Your task to perform on an android device: show emergency info Image 0: 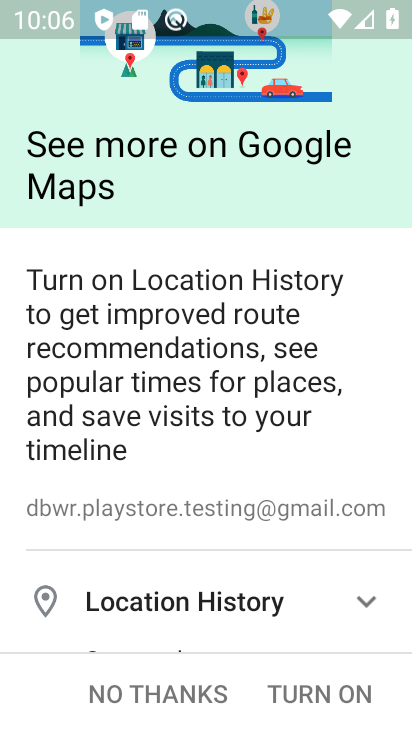
Step 0: click (328, 675)
Your task to perform on an android device: show emergency info Image 1: 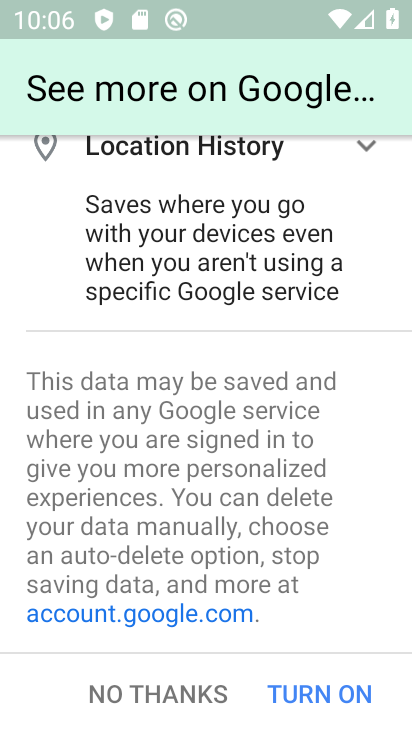
Step 1: click (328, 675)
Your task to perform on an android device: show emergency info Image 2: 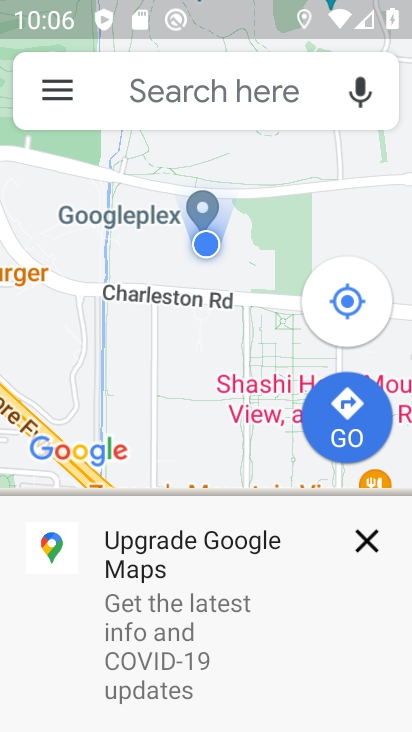
Step 2: click (366, 550)
Your task to perform on an android device: show emergency info Image 3: 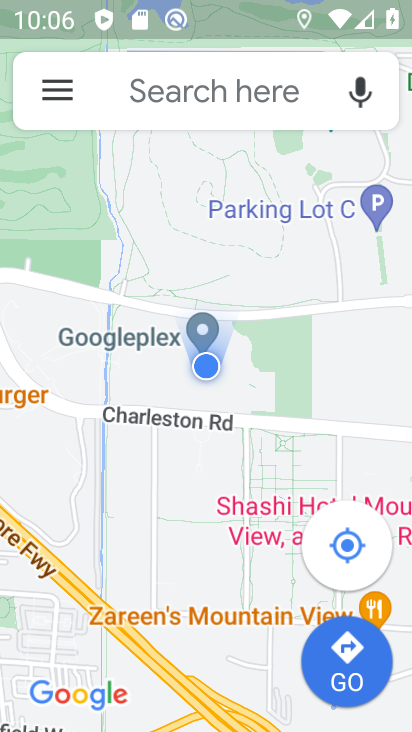
Step 3: press home button
Your task to perform on an android device: show emergency info Image 4: 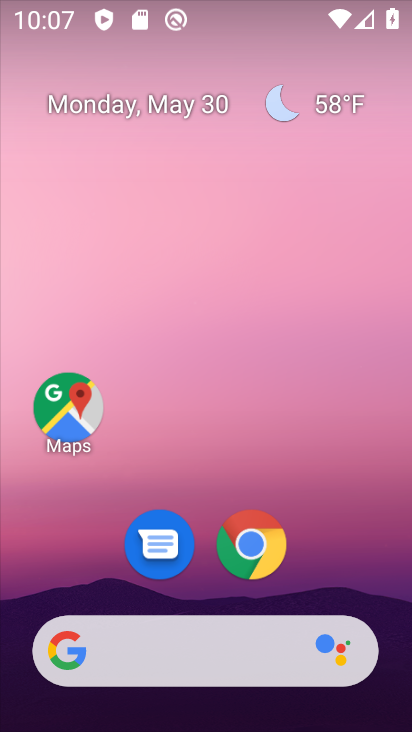
Step 4: drag from (333, 562) to (258, 67)
Your task to perform on an android device: show emergency info Image 5: 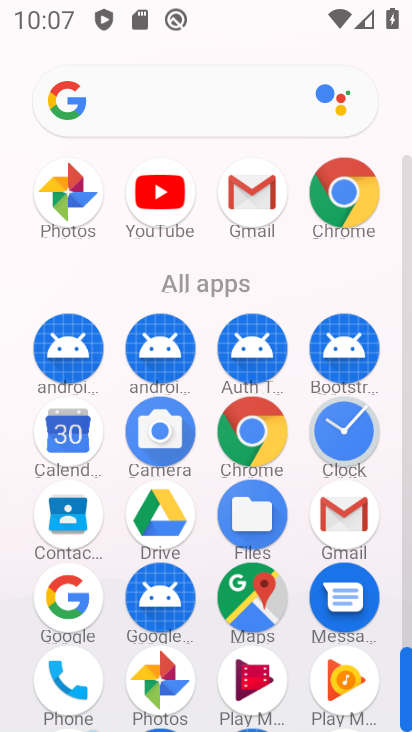
Step 5: click (407, 680)
Your task to perform on an android device: show emergency info Image 6: 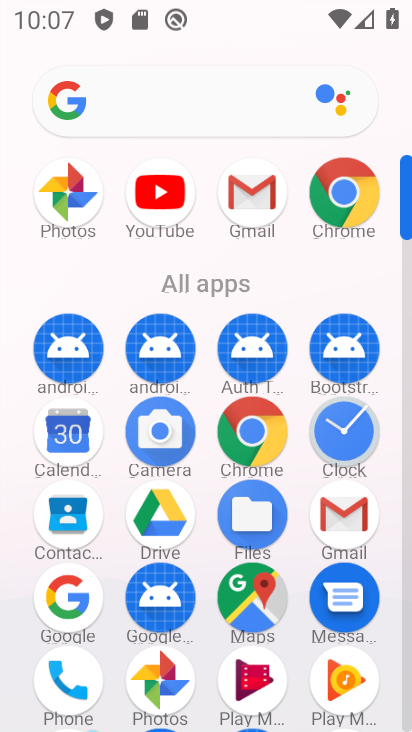
Step 6: click (408, 729)
Your task to perform on an android device: show emergency info Image 7: 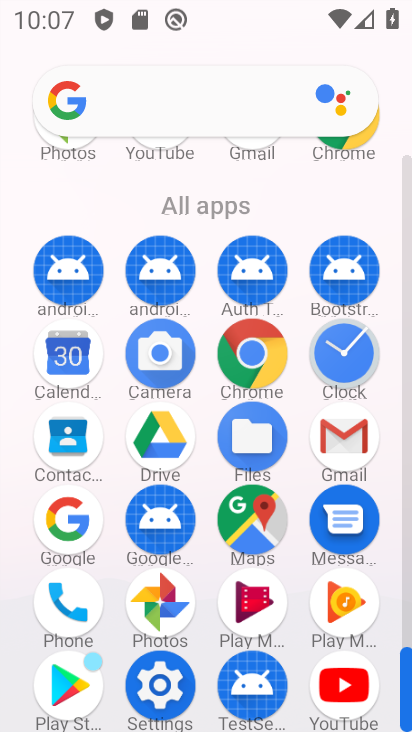
Step 7: click (143, 691)
Your task to perform on an android device: show emergency info Image 8: 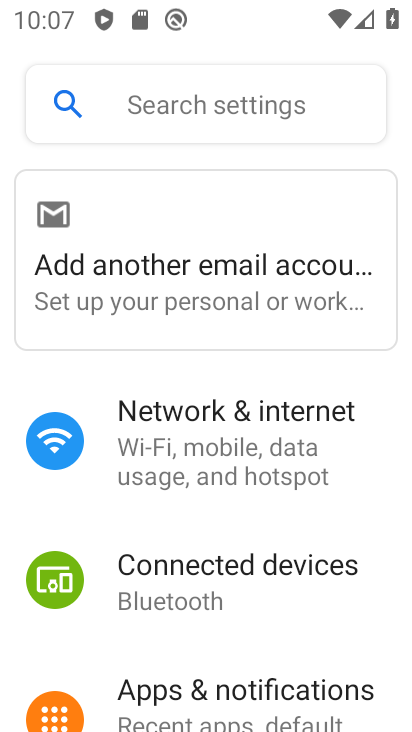
Step 8: drag from (292, 571) to (321, 1)
Your task to perform on an android device: show emergency info Image 9: 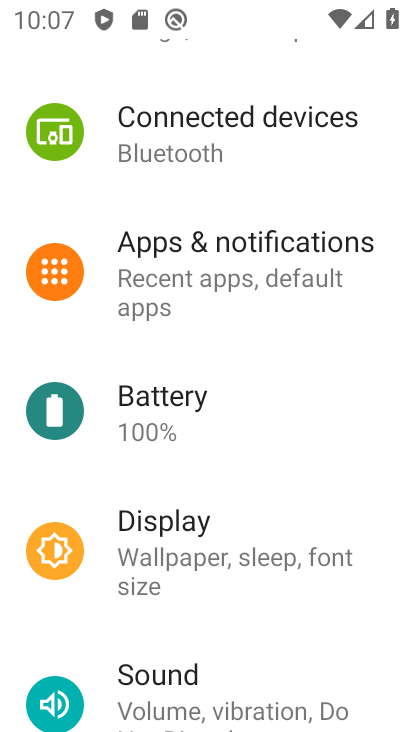
Step 9: drag from (303, 638) to (331, 96)
Your task to perform on an android device: show emergency info Image 10: 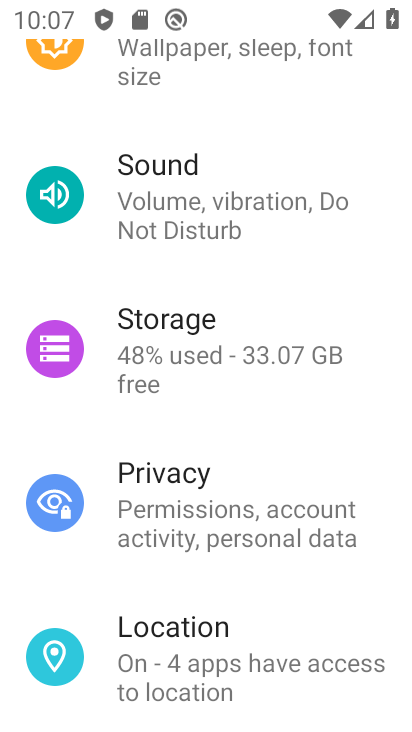
Step 10: drag from (284, 687) to (326, 68)
Your task to perform on an android device: show emergency info Image 11: 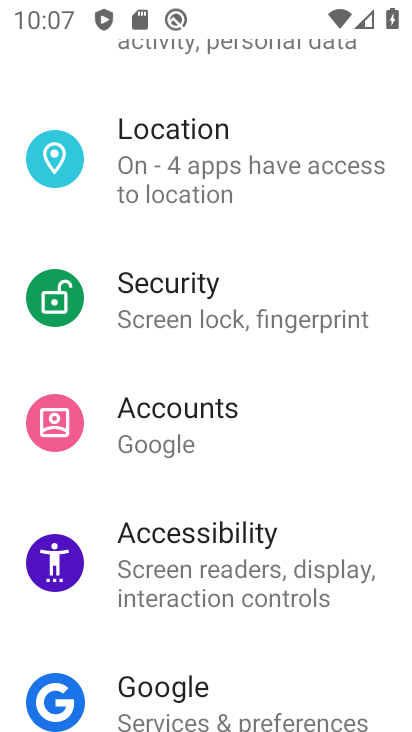
Step 11: drag from (260, 669) to (273, 260)
Your task to perform on an android device: show emergency info Image 12: 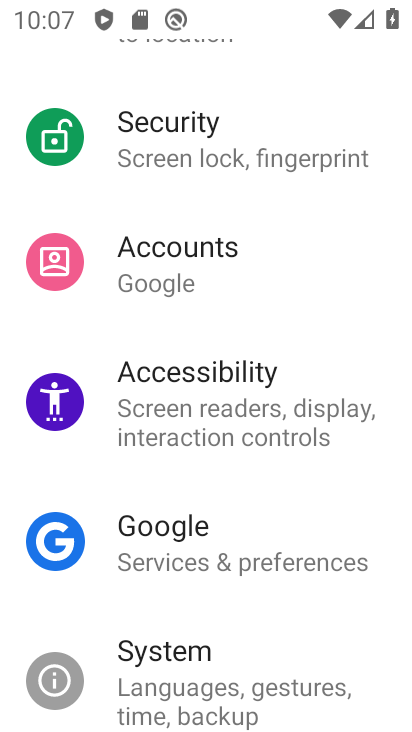
Step 12: drag from (197, 680) to (220, 246)
Your task to perform on an android device: show emergency info Image 13: 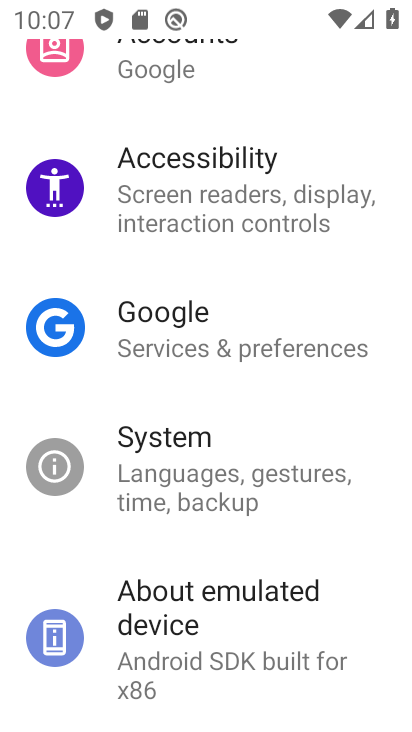
Step 13: click (226, 570)
Your task to perform on an android device: show emergency info Image 14: 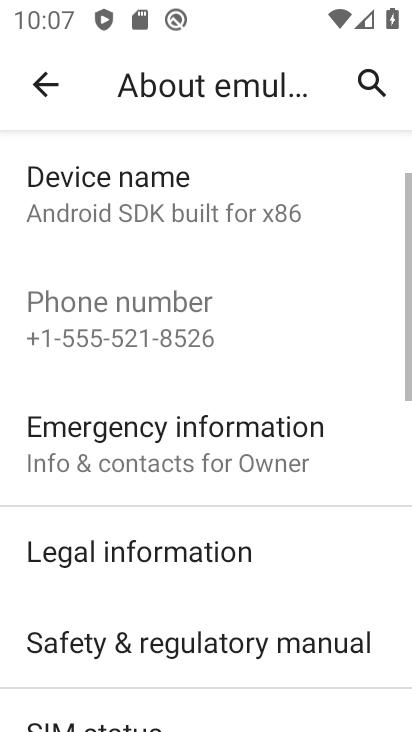
Step 14: click (254, 455)
Your task to perform on an android device: show emergency info Image 15: 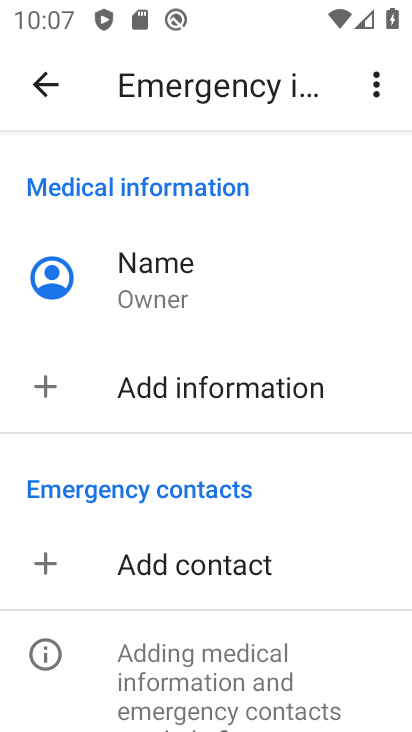
Step 15: task complete